Your task to perform on an android device: check out phone information Image 0: 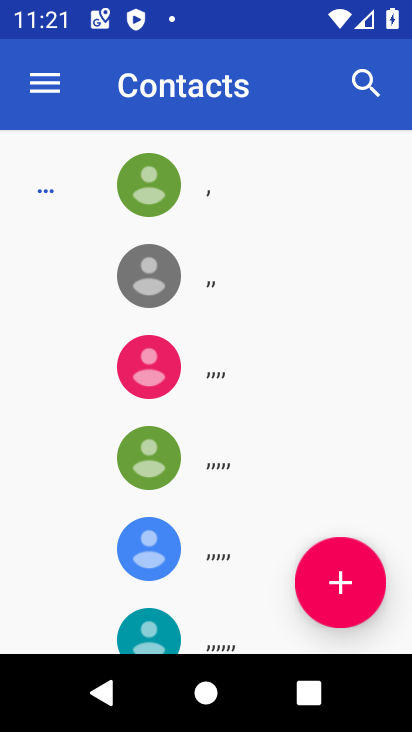
Step 0: press home button
Your task to perform on an android device: check out phone information Image 1: 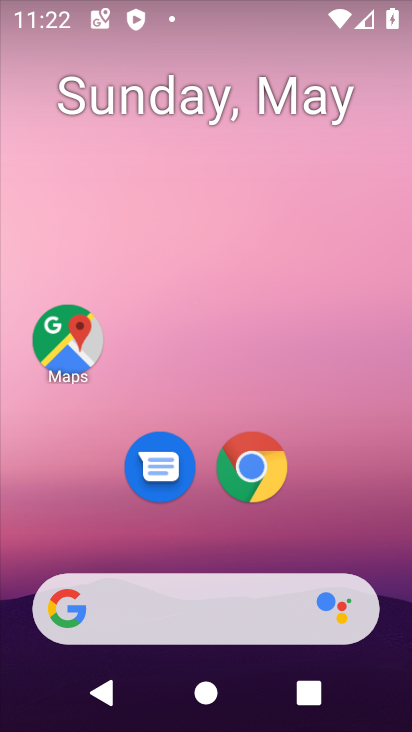
Step 1: press home button
Your task to perform on an android device: check out phone information Image 2: 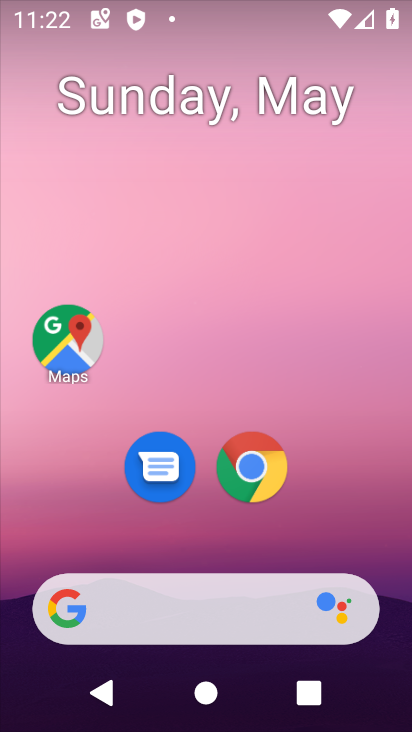
Step 2: drag from (357, 547) to (348, 18)
Your task to perform on an android device: check out phone information Image 3: 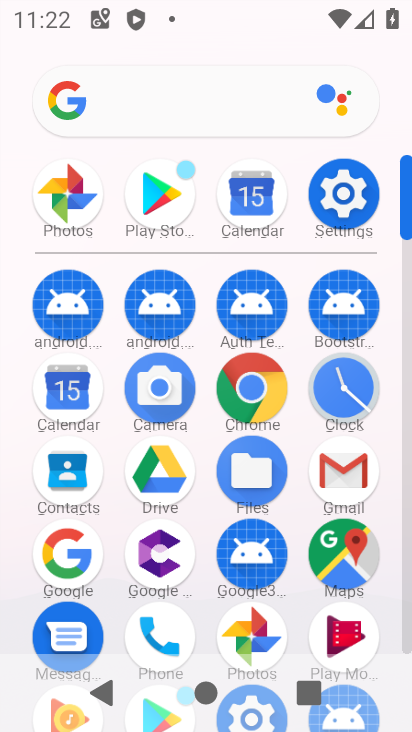
Step 3: click (339, 206)
Your task to perform on an android device: check out phone information Image 4: 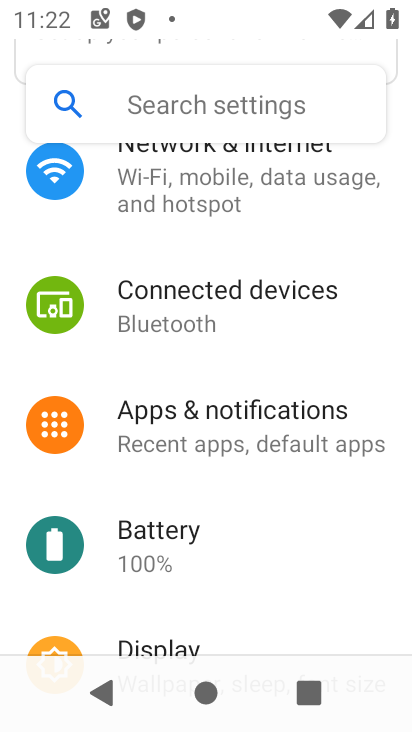
Step 4: drag from (326, 626) to (351, 13)
Your task to perform on an android device: check out phone information Image 5: 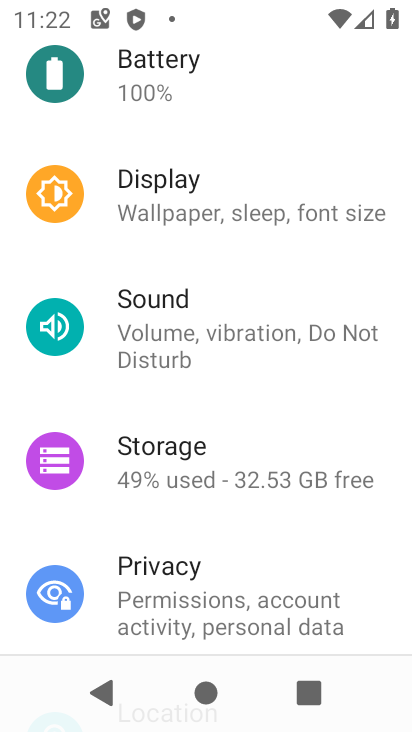
Step 5: drag from (337, 597) to (352, 136)
Your task to perform on an android device: check out phone information Image 6: 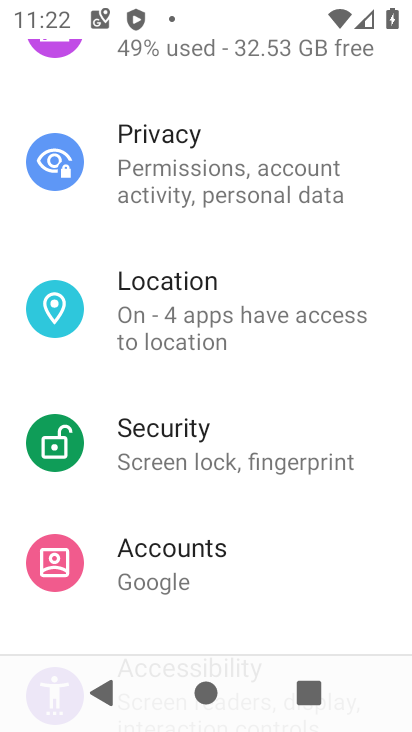
Step 6: drag from (353, 540) to (317, 14)
Your task to perform on an android device: check out phone information Image 7: 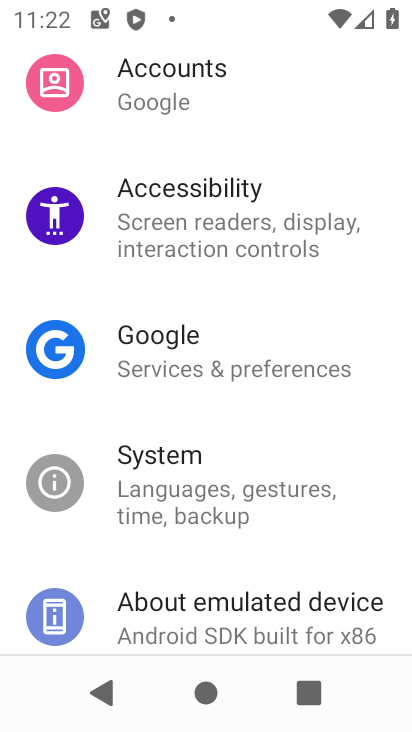
Step 7: click (214, 621)
Your task to perform on an android device: check out phone information Image 8: 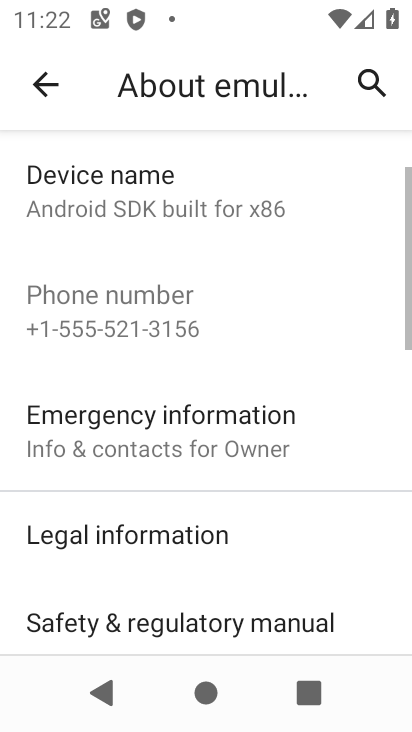
Step 8: task complete